Your task to perform on an android device: Check the weather Image 0: 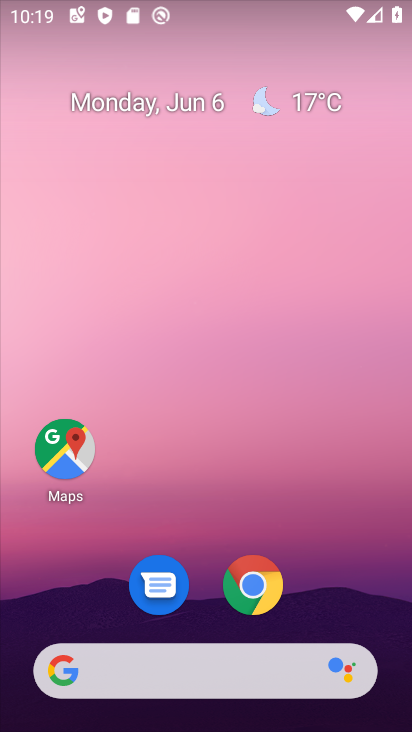
Step 0: click (268, 103)
Your task to perform on an android device: Check the weather Image 1: 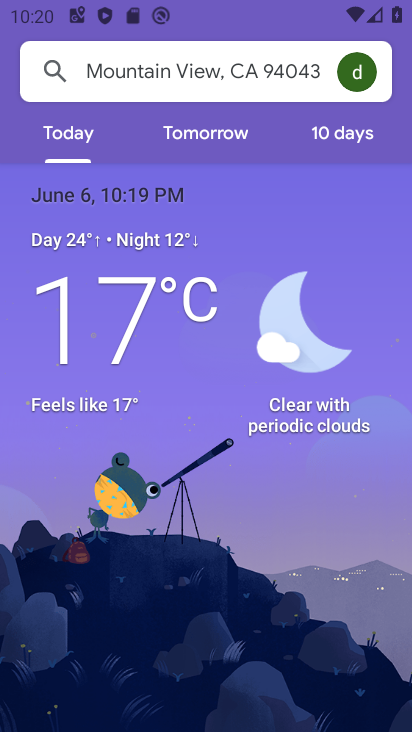
Step 1: task complete